Your task to perform on an android device: Open the phone app and click the voicemail tab. Image 0: 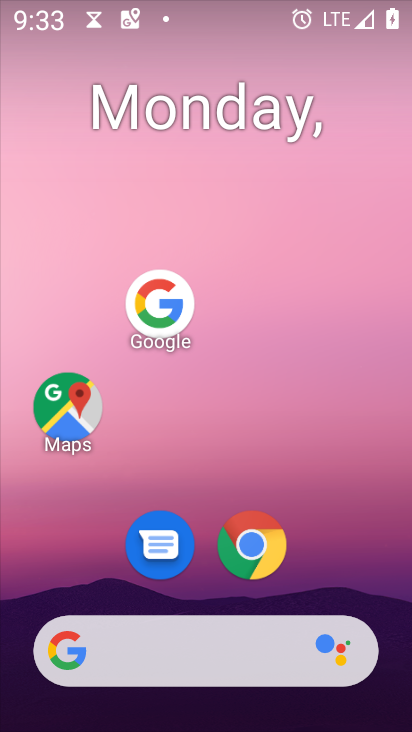
Step 0: drag from (177, 658) to (301, 90)
Your task to perform on an android device: Open the phone app and click the voicemail tab. Image 1: 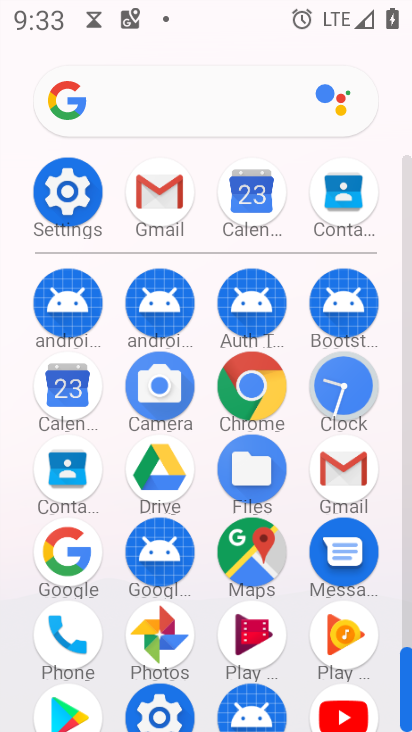
Step 1: drag from (208, 660) to (320, 104)
Your task to perform on an android device: Open the phone app and click the voicemail tab. Image 2: 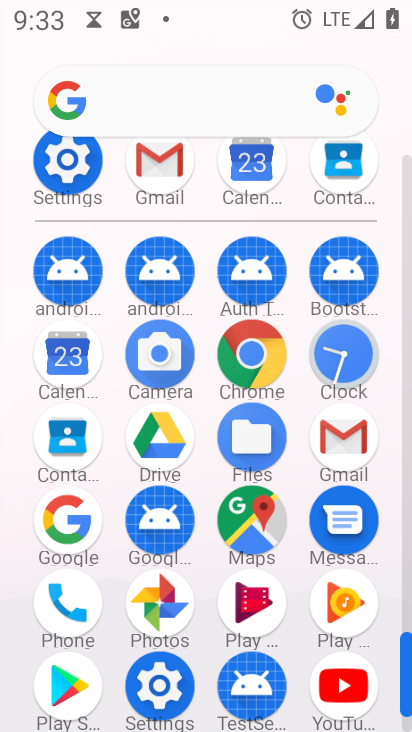
Step 2: click (68, 612)
Your task to perform on an android device: Open the phone app and click the voicemail tab. Image 3: 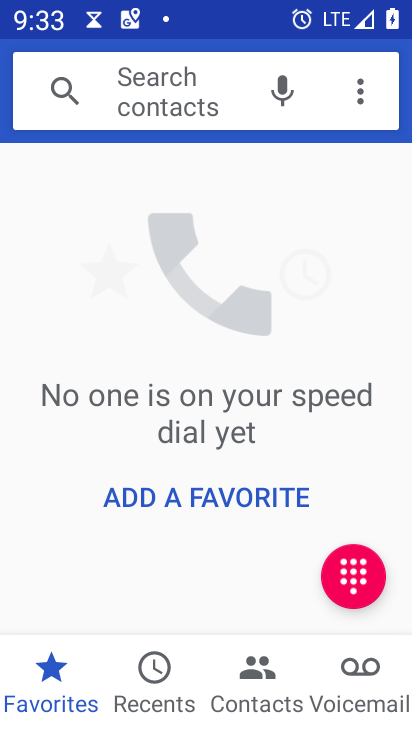
Step 3: click (348, 683)
Your task to perform on an android device: Open the phone app and click the voicemail tab. Image 4: 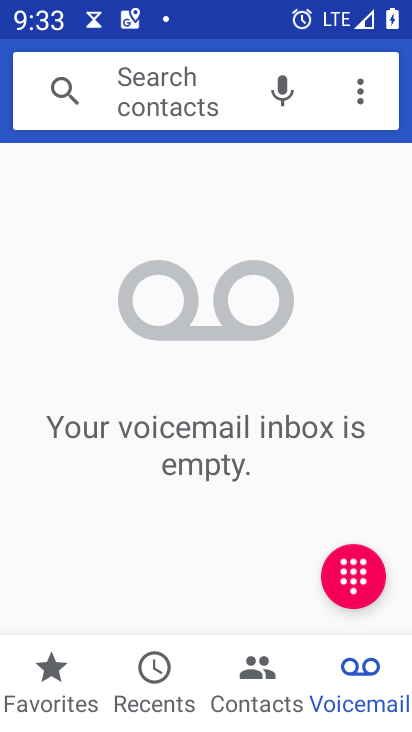
Step 4: task complete